Your task to perform on an android device: toggle wifi Image 0: 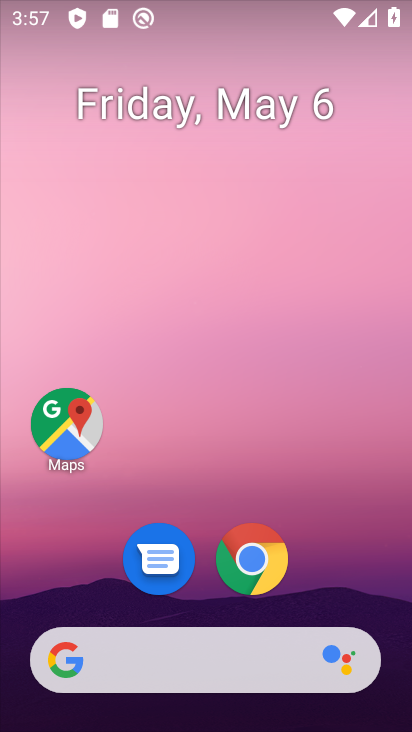
Step 0: drag from (205, 626) to (278, 126)
Your task to perform on an android device: toggle wifi Image 1: 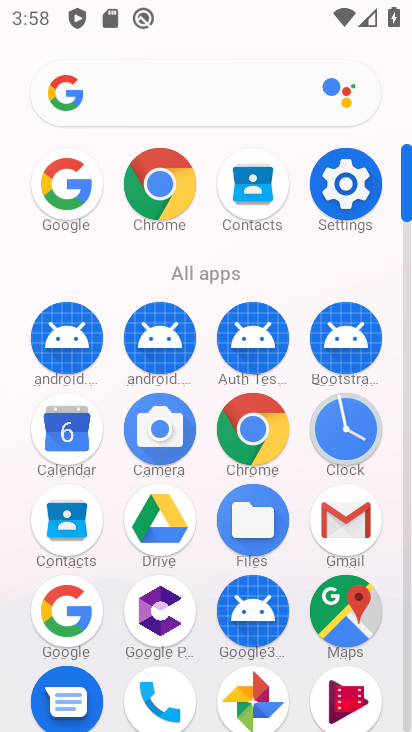
Step 1: click (339, 192)
Your task to perform on an android device: toggle wifi Image 2: 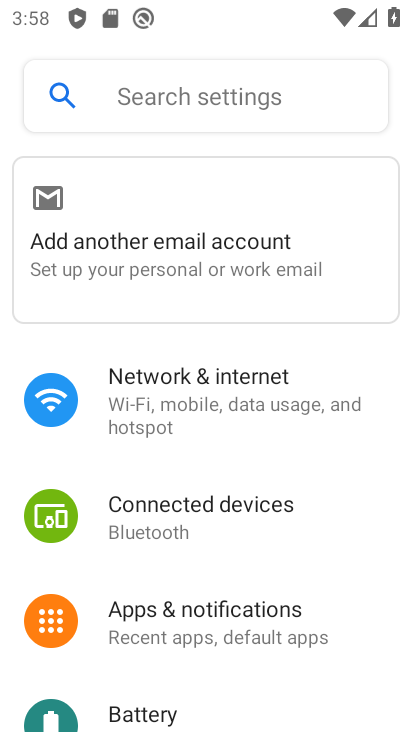
Step 2: click (255, 383)
Your task to perform on an android device: toggle wifi Image 3: 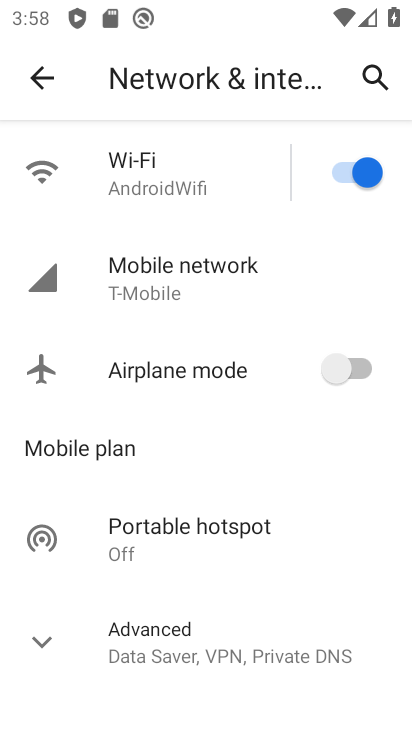
Step 3: click (348, 172)
Your task to perform on an android device: toggle wifi Image 4: 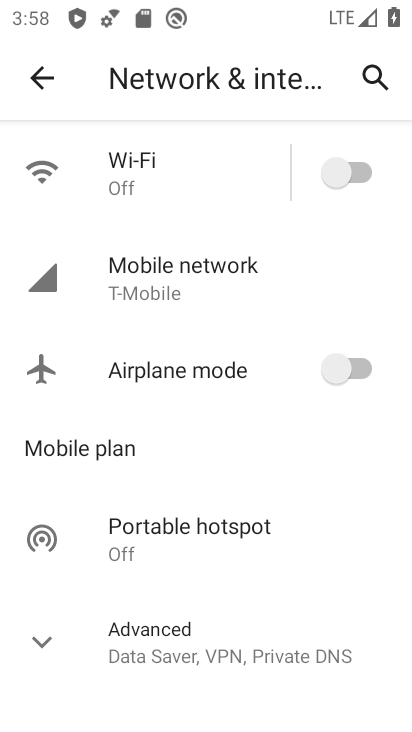
Step 4: task complete